Your task to perform on an android device: check storage Image 0: 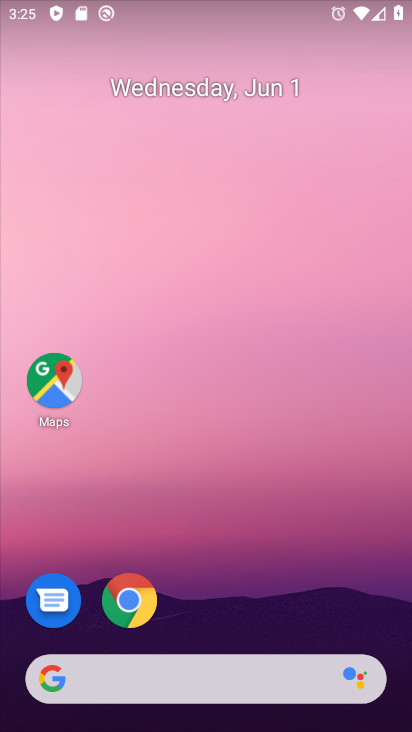
Step 0: drag from (215, 625) to (256, 131)
Your task to perform on an android device: check storage Image 1: 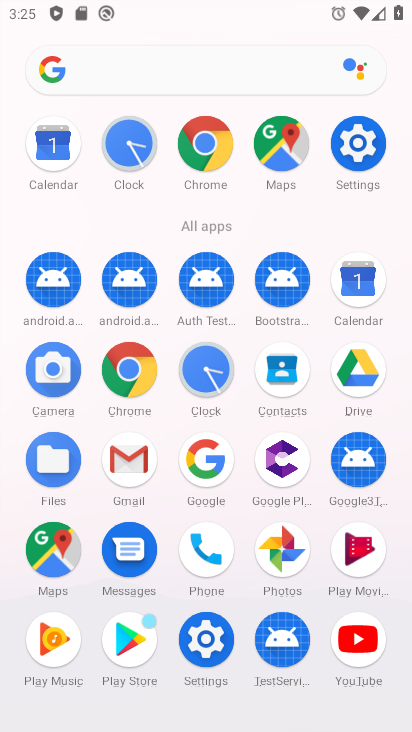
Step 1: click (354, 157)
Your task to perform on an android device: check storage Image 2: 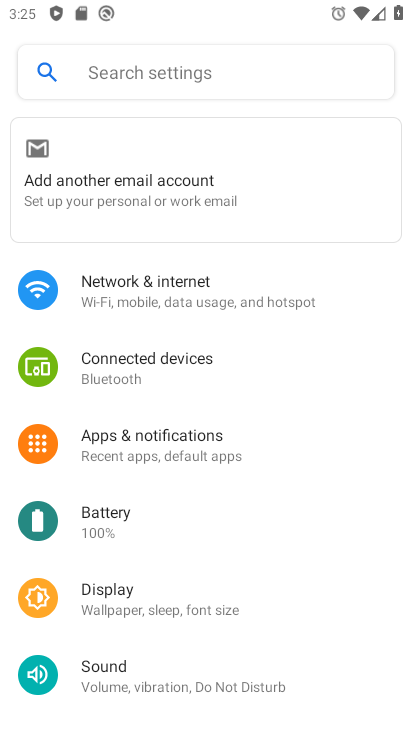
Step 2: drag from (148, 641) to (174, 433)
Your task to perform on an android device: check storage Image 3: 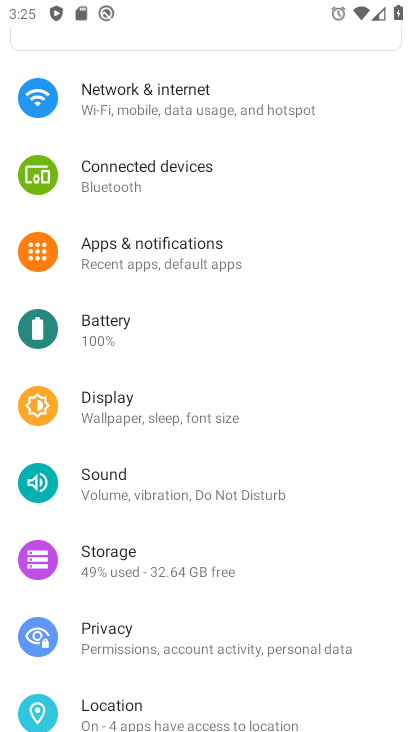
Step 3: click (107, 557)
Your task to perform on an android device: check storage Image 4: 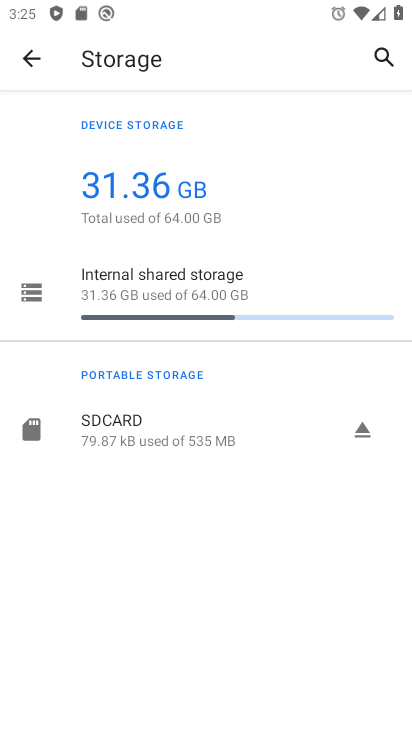
Step 4: task complete